Your task to perform on an android device: Show the shopping cart on amazon. Add asus rog to the cart on amazon, then select checkout. Image 0: 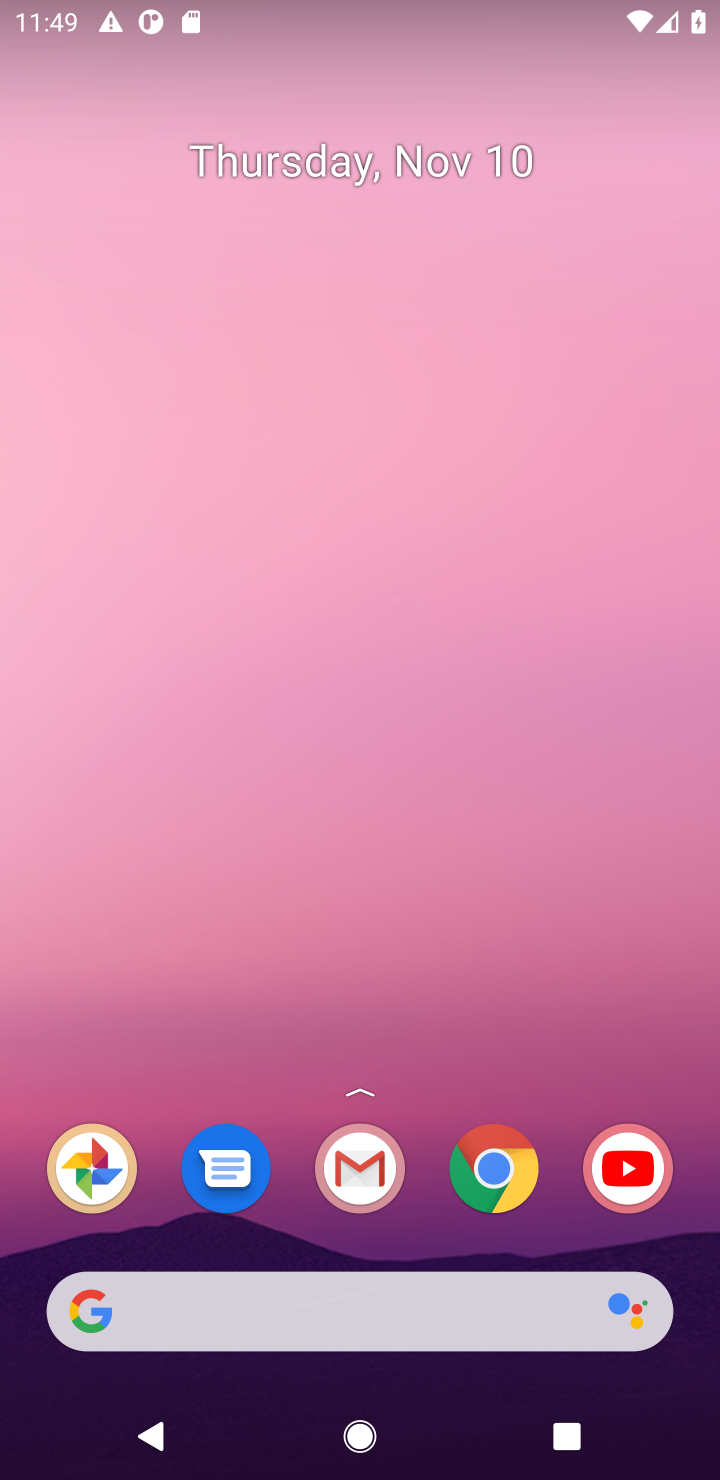
Step 0: click (494, 1193)
Your task to perform on an android device: Show the shopping cart on amazon. Add asus rog to the cart on amazon, then select checkout. Image 1: 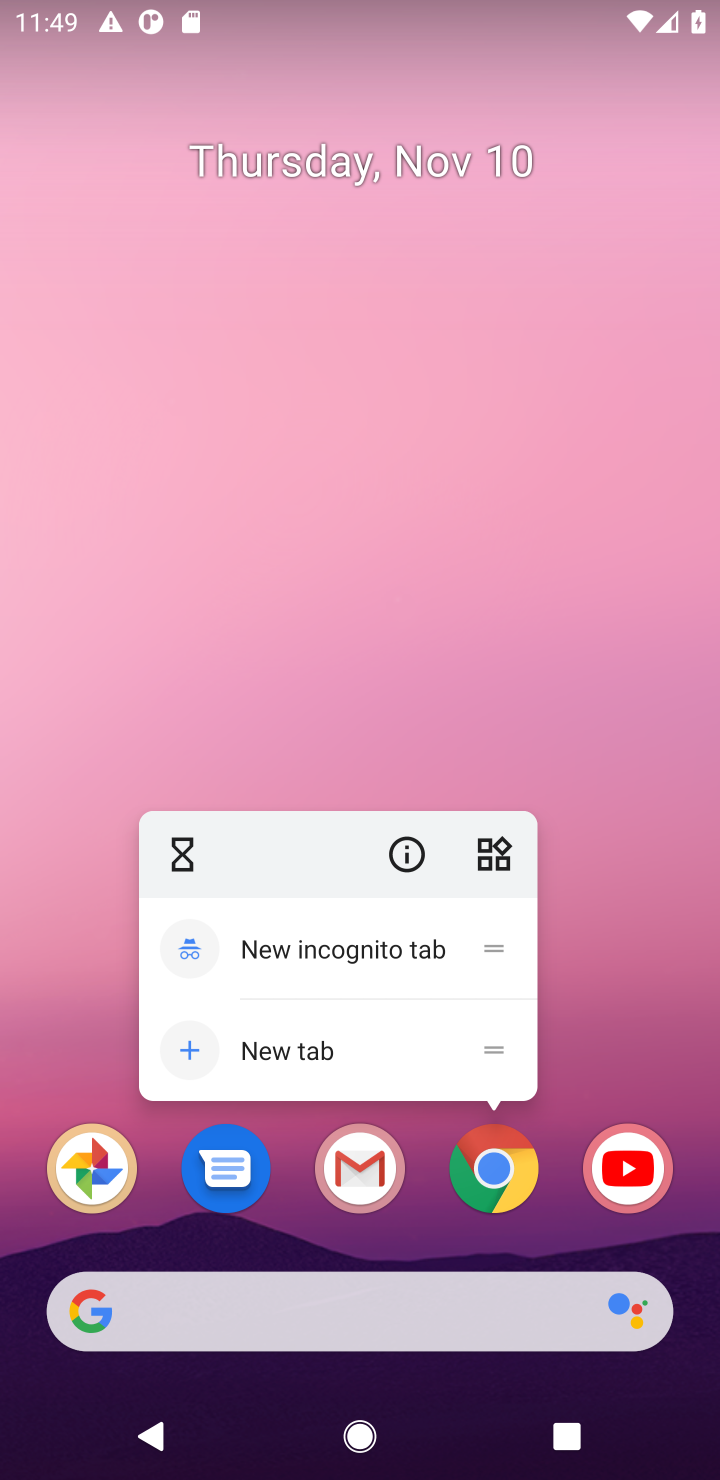
Step 1: click (507, 1160)
Your task to perform on an android device: Show the shopping cart on amazon. Add asus rog to the cart on amazon, then select checkout. Image 2: 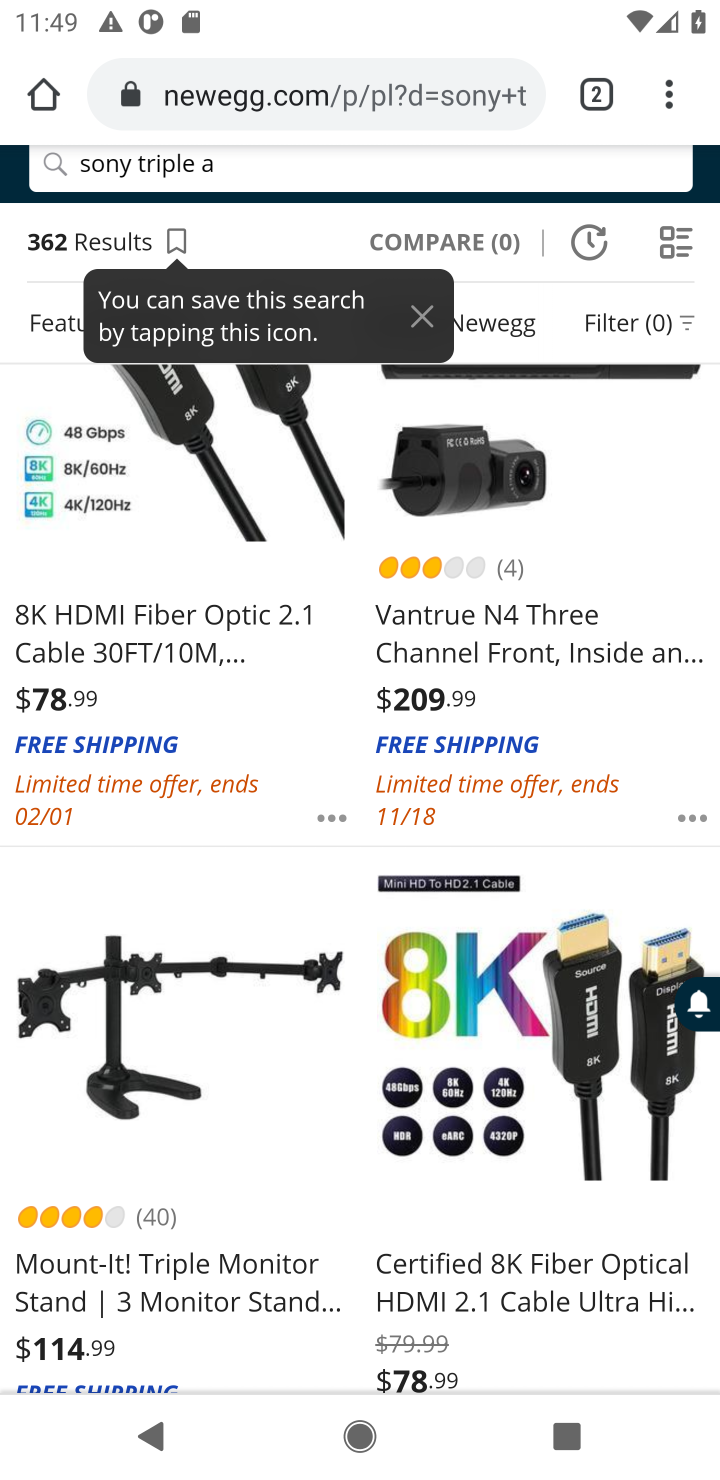
Step 2: click (203, 104)
Your task to perform on an android device: Show the shopping cart on amazon. Add asus rog to the cart on amazon, then select checkout. Image 3: 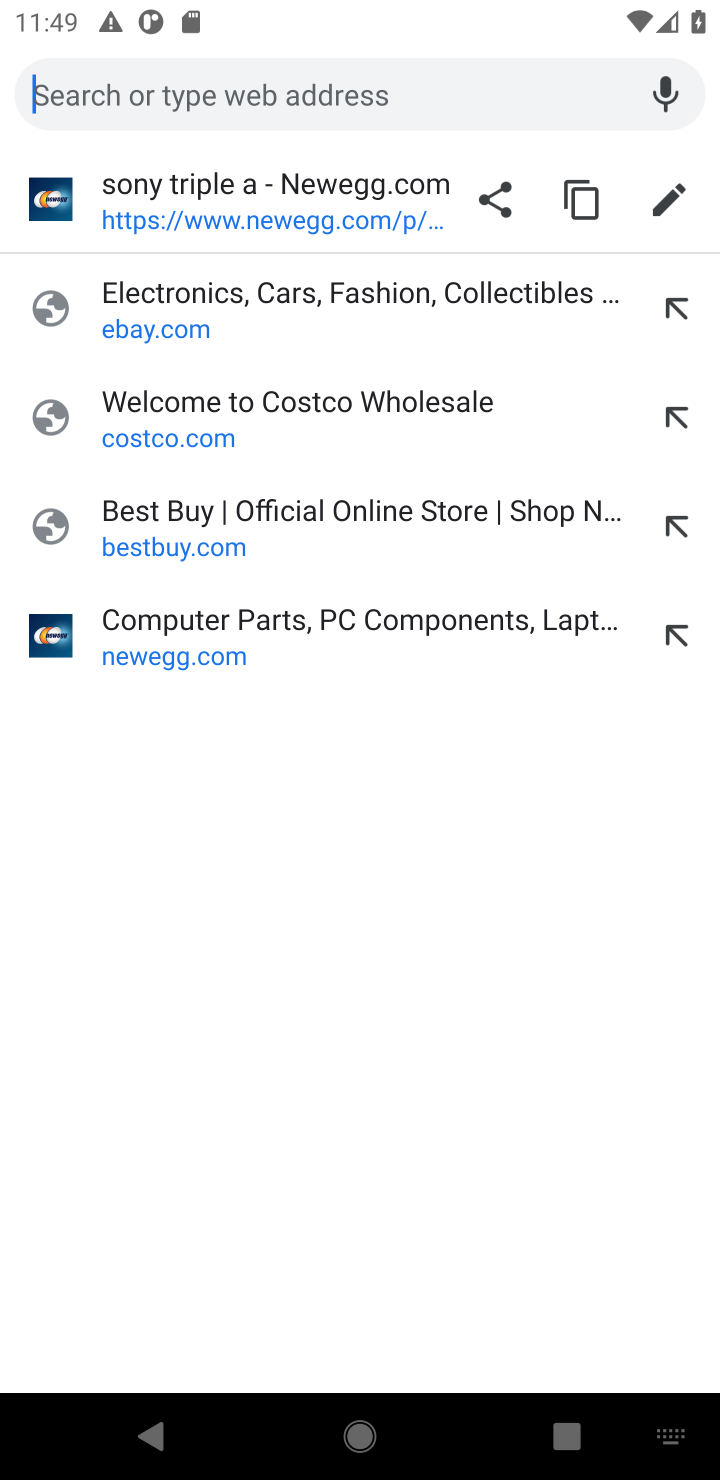
Step 3: type "amazon.com"
Your task to perform on an android device: Show the shopping cart on amazon. Add asus rog to the cart on amazon, then select checkout. Image 4: 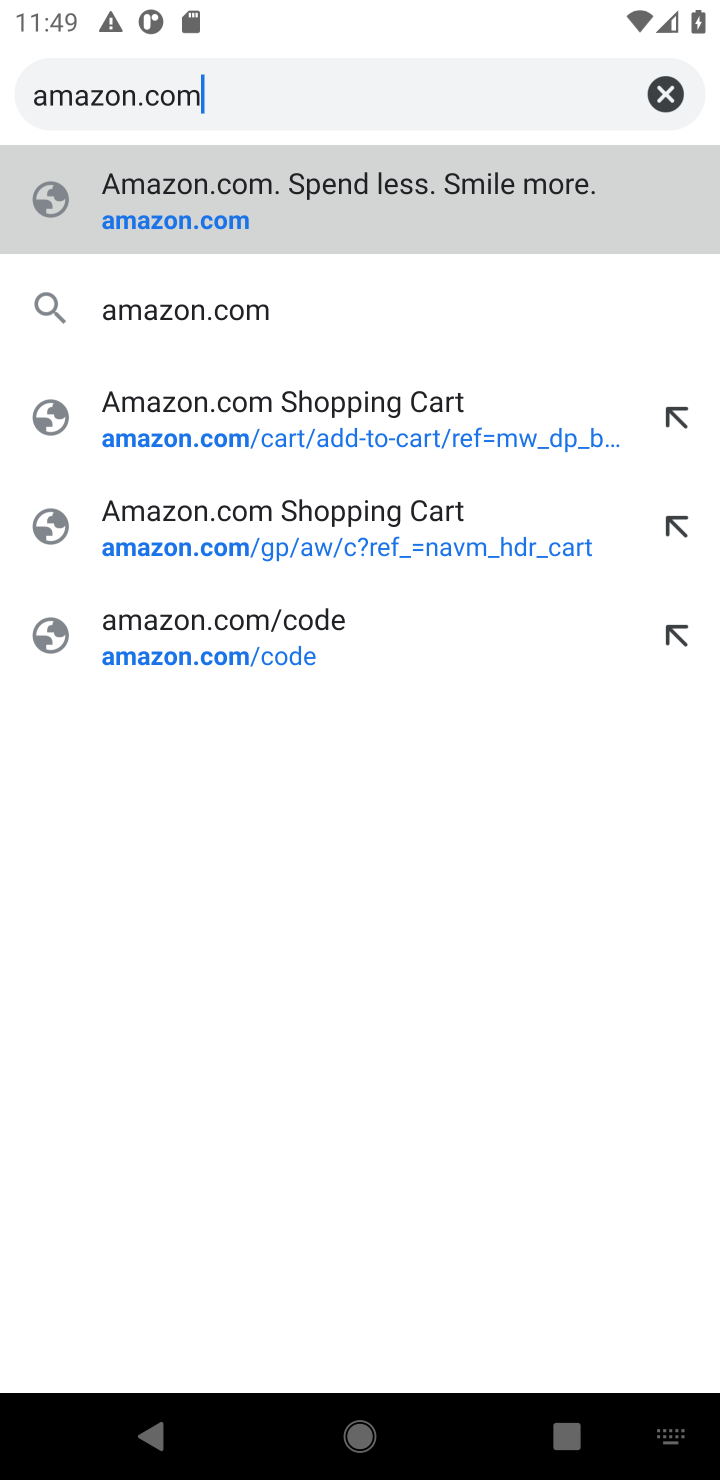
Step 4: click (184, 239)
Your task to perform on an android device: Show the shopping cart on amazon. Add asus rog to the cart on amazon, then select checkout. Image 5: 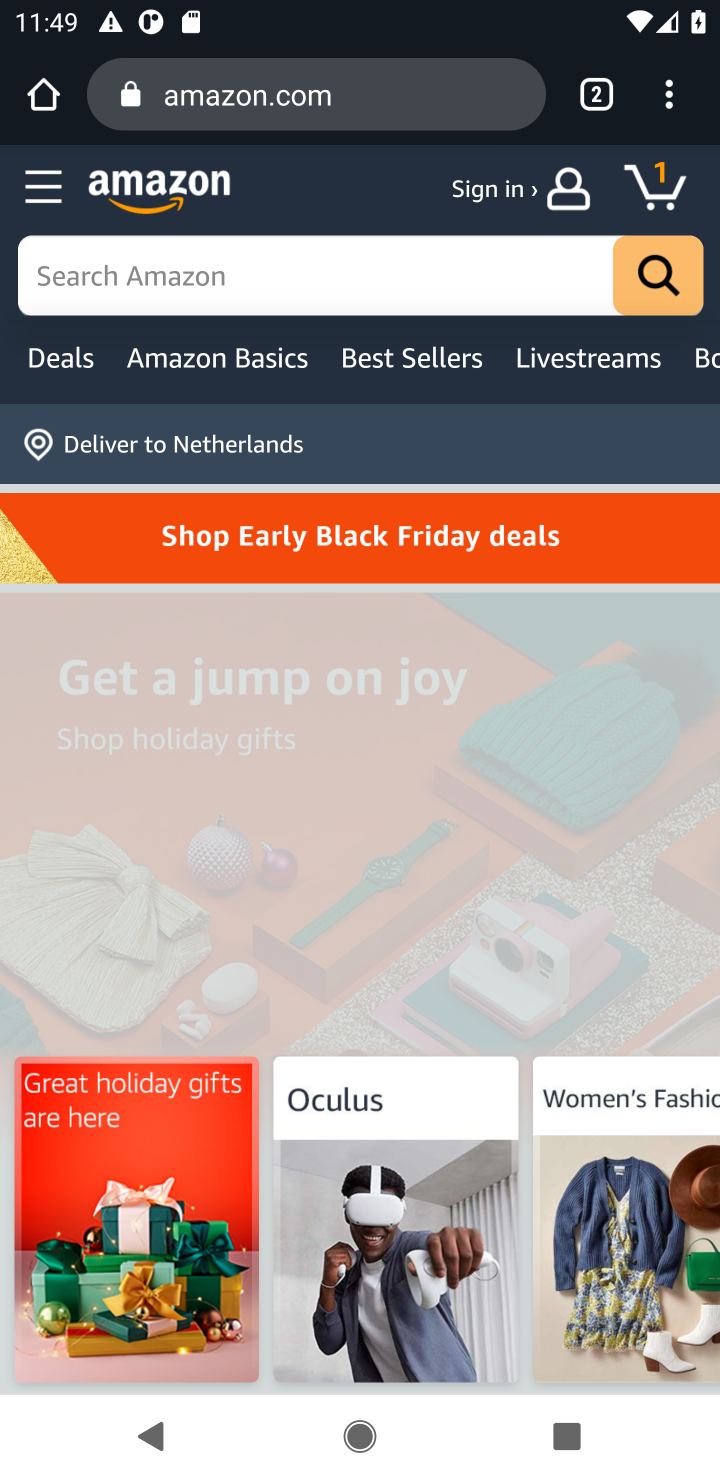
Step 5: click (660, 186)
Your task to perform on an android device: Show the shopping cart on amazon. Add asus rog to the cart on amazon, then select checkout. Image 6: 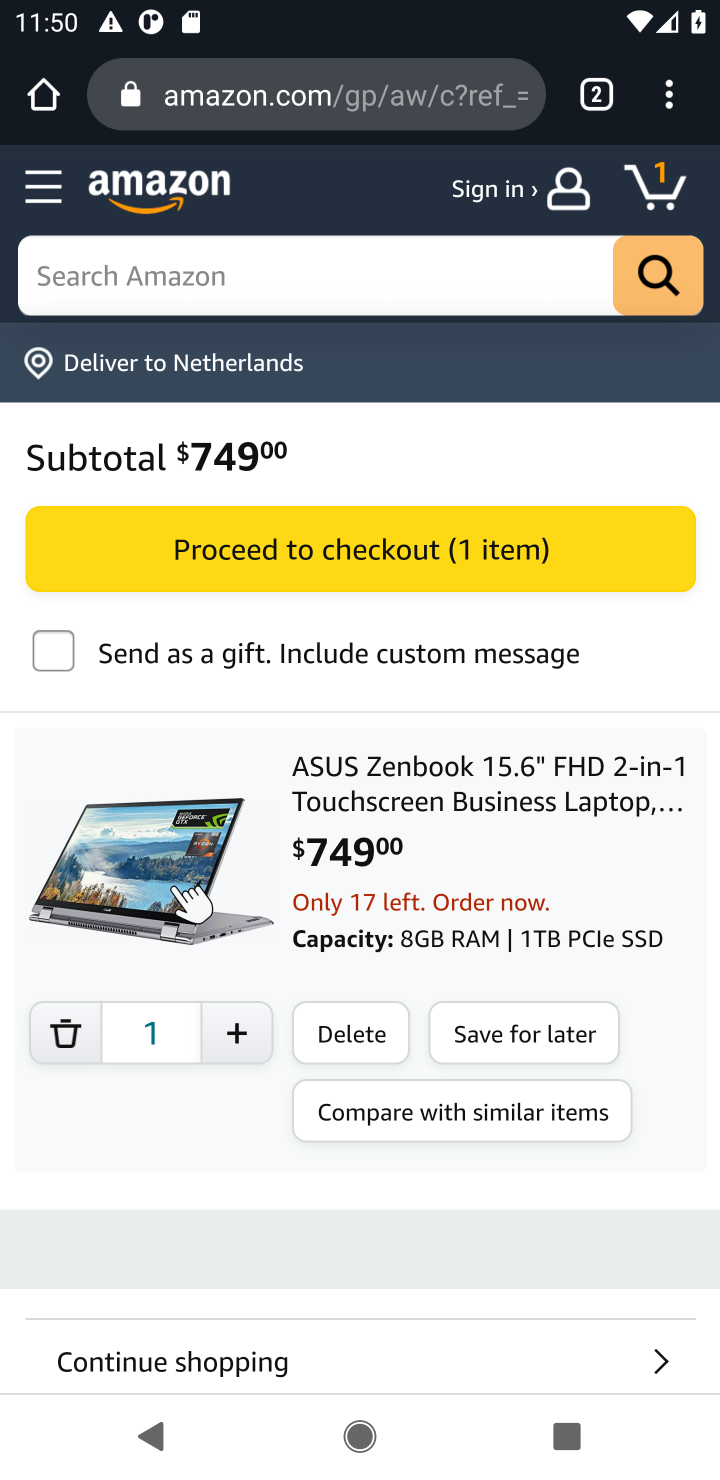
Step 6: drag from (457, 859) to (453, 605)
Your task to perform on an android device: Show the shopping cart on amazon. Add asus rog to the cart on amazon, then select checkout. Image 7: 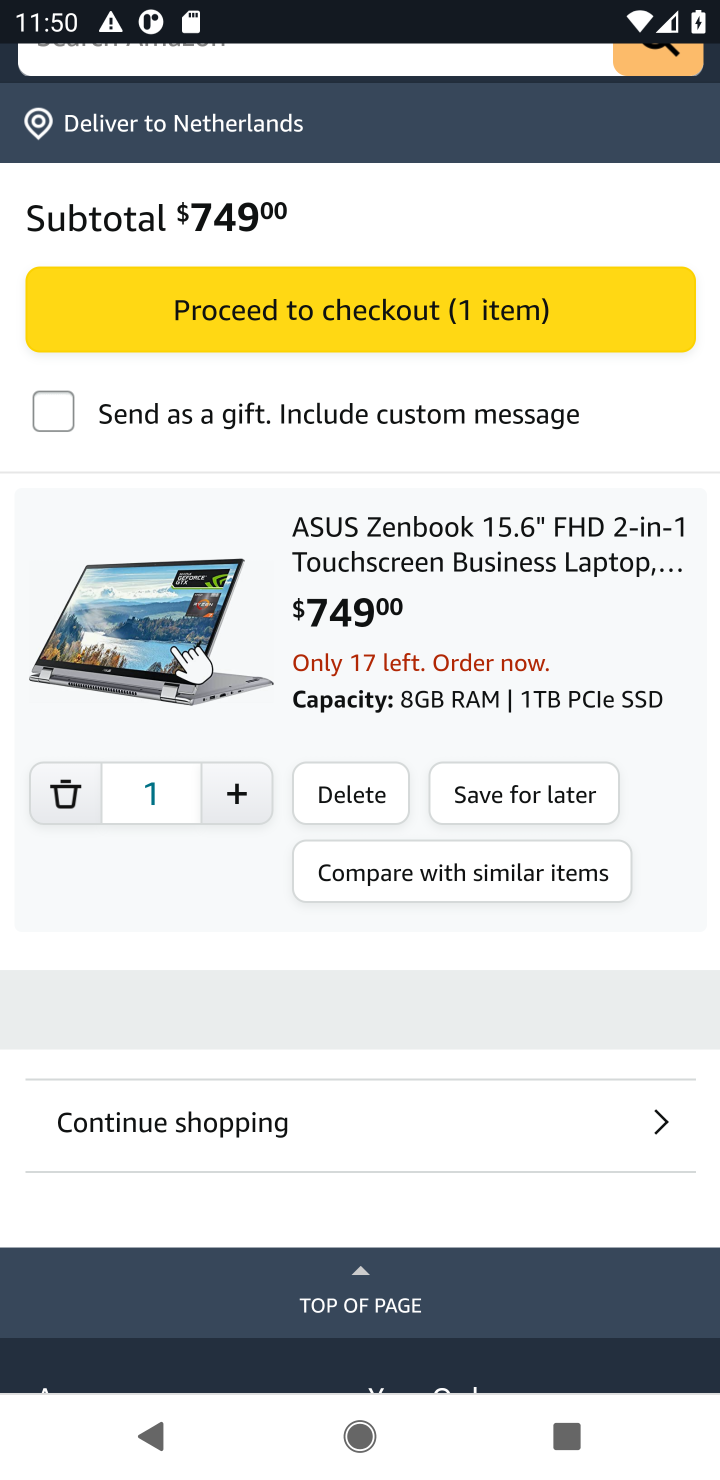
Step 7: drag from (654, 535) to (654, 755)
Your task to perform on an android device: Show the shopping cart on amazon. Add asus rog to the cart on amazon, then select checkout. Image 8: 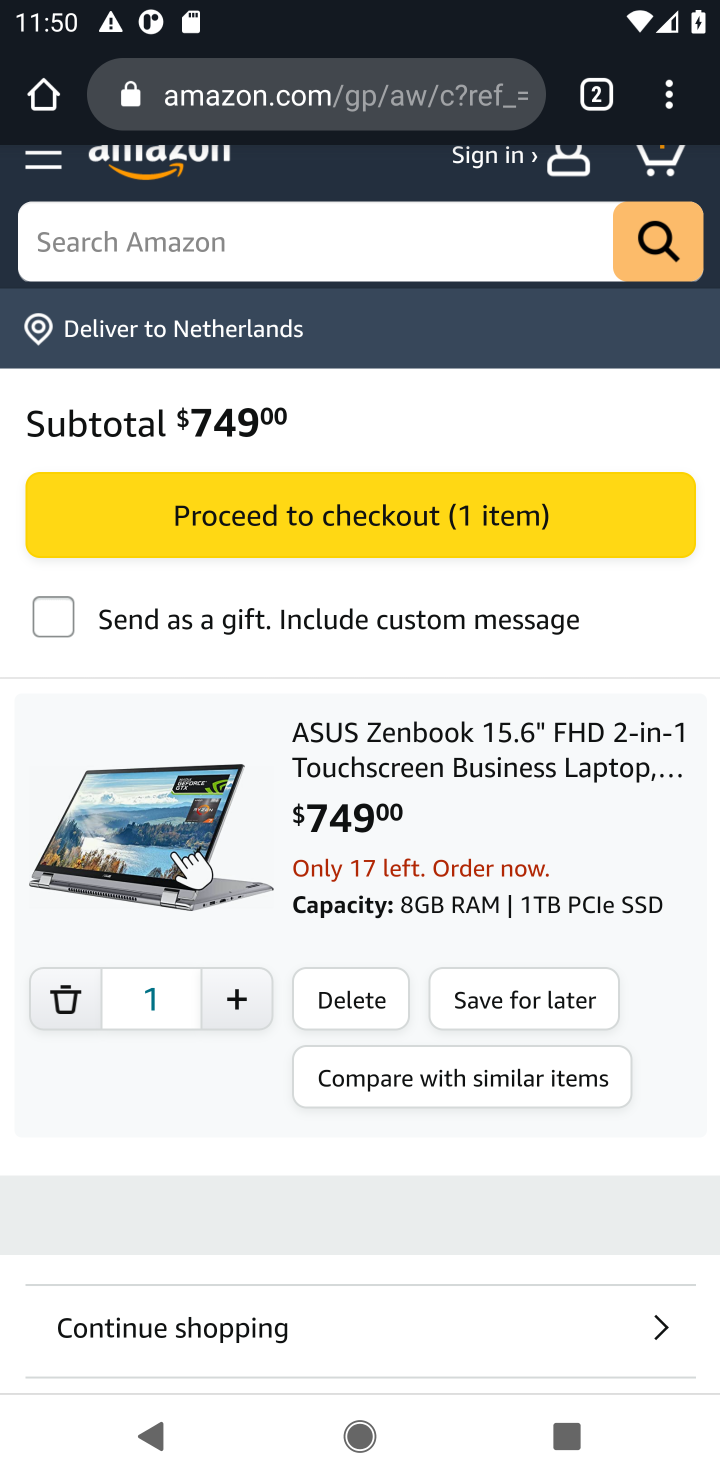
Step 8: click (277, 259)
Your task to perform on an android device: Show the shopping cart on amazon. Add asus rog to the cart on amazon, then select checkout. Image 9: 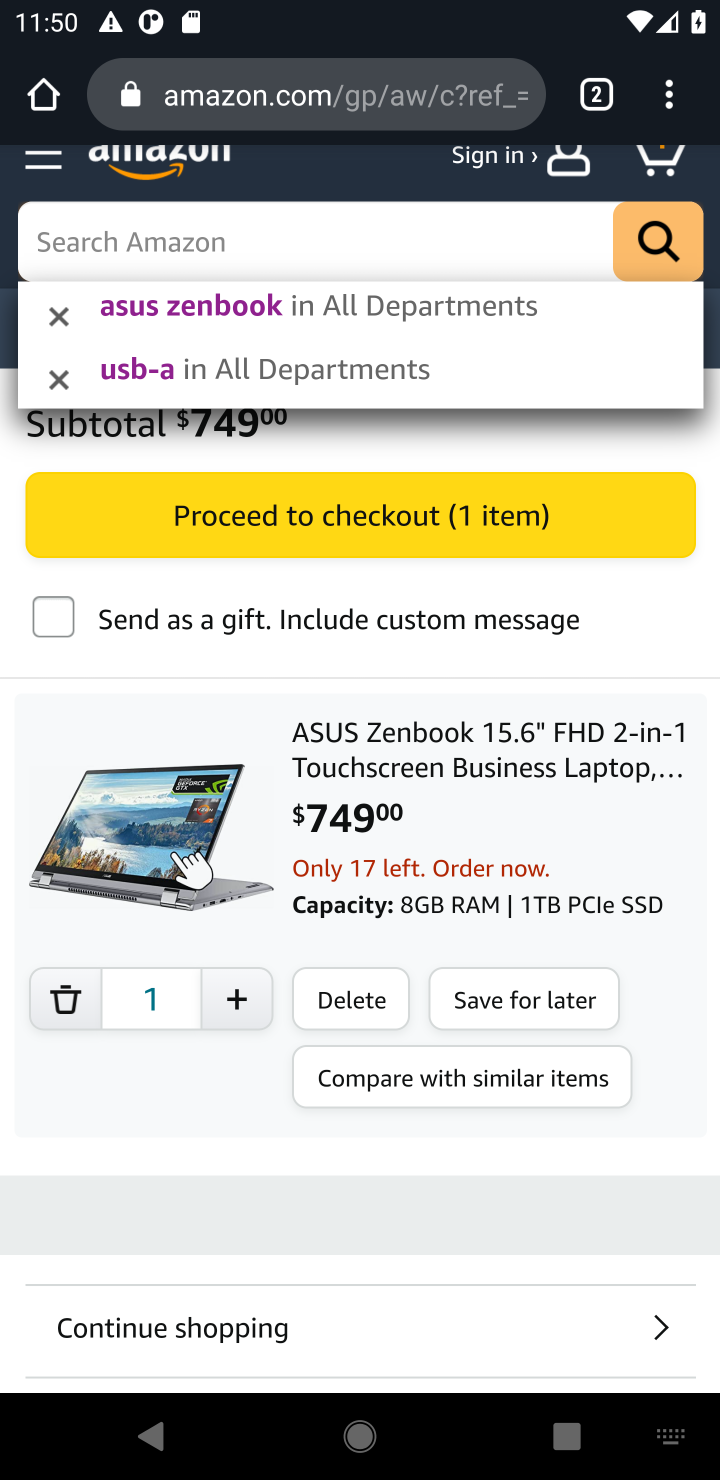
Step 9: type "asus rog"
Your task to perform on an android device: Show the shopping cart on amazon. Add asus rog to the cart on amazon, then select checkout. Image 10: 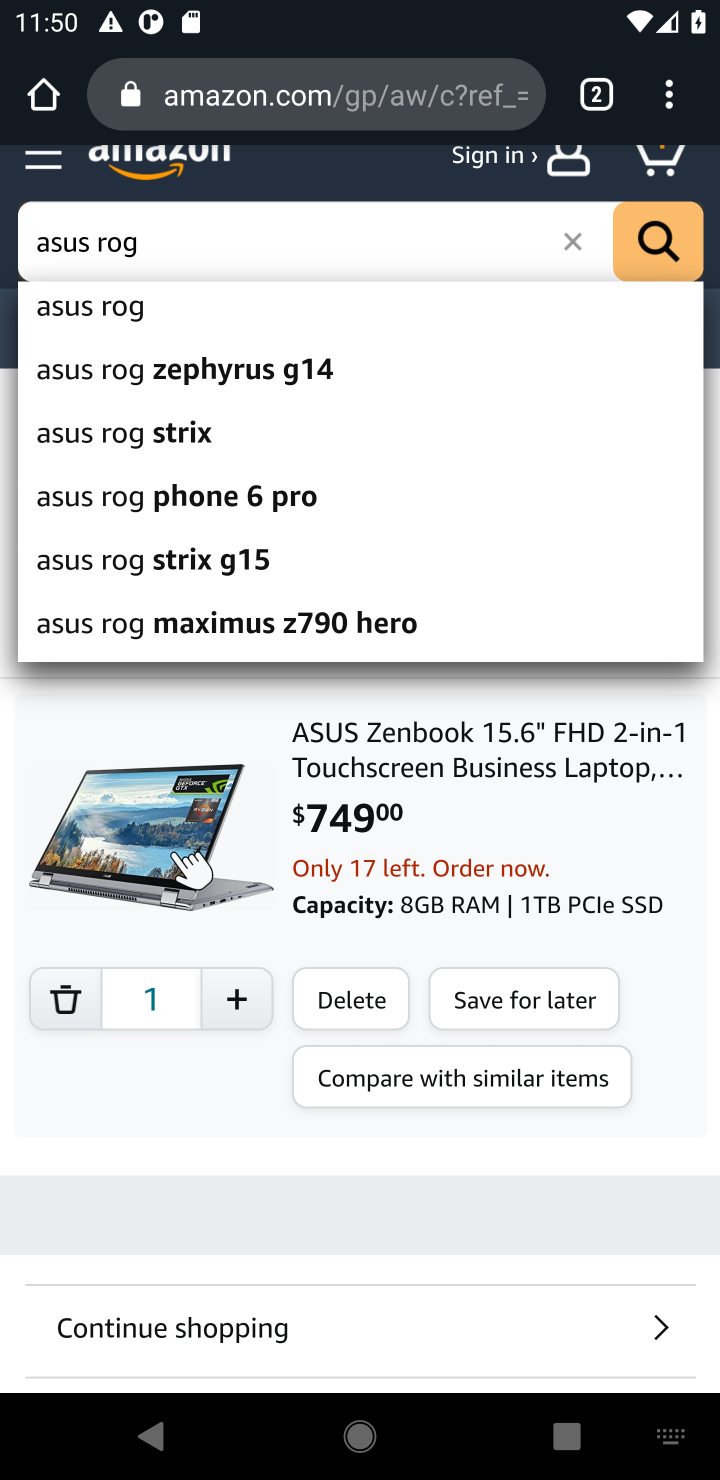
Step 10: click (82, 314)
Your task to perform on an android device: Show the shopping cart on amazon. Add asus rog to the cart on amazon, then select checkout. Image 11: 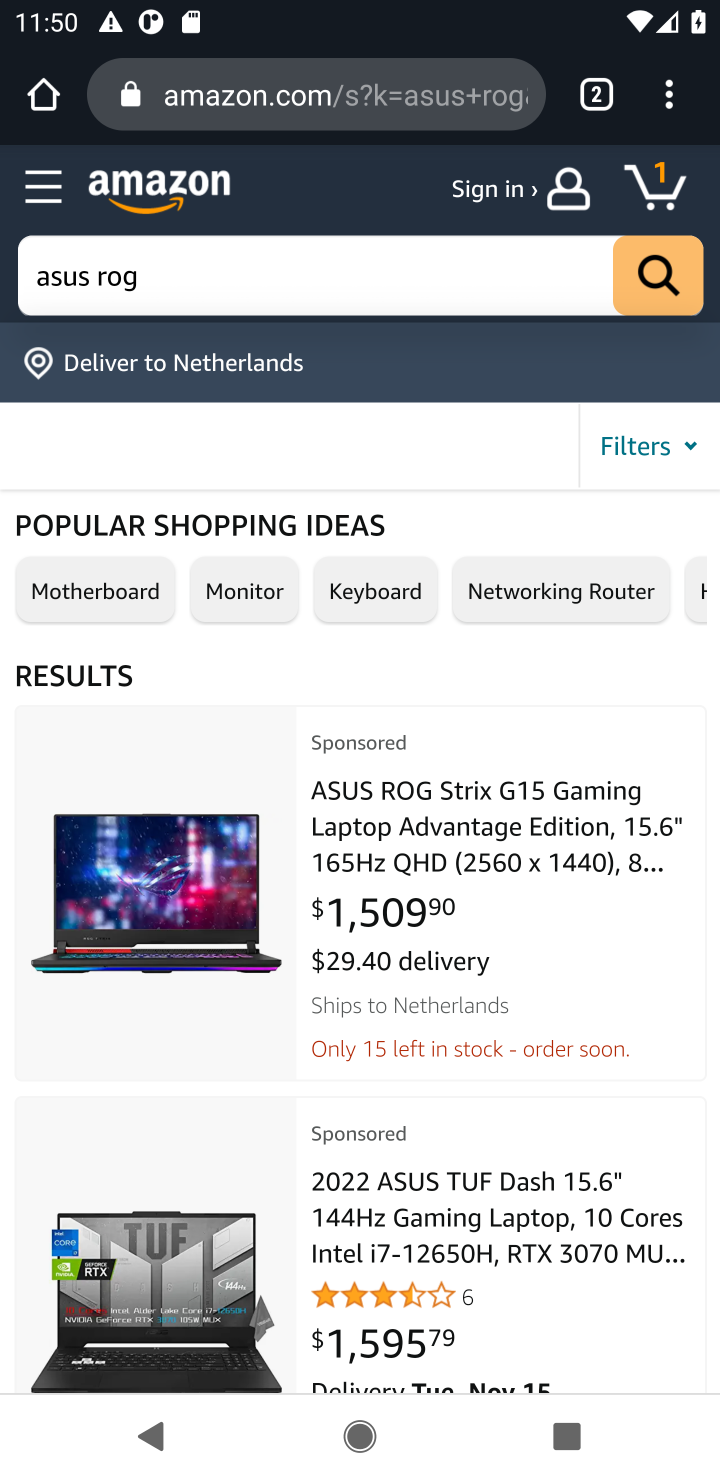
Step 11: click (198, 878)
Your task to perform on an android device: Show the shopping cart on amazon. Add asus rog to the cart on amazon, then select checkout. Image 12: 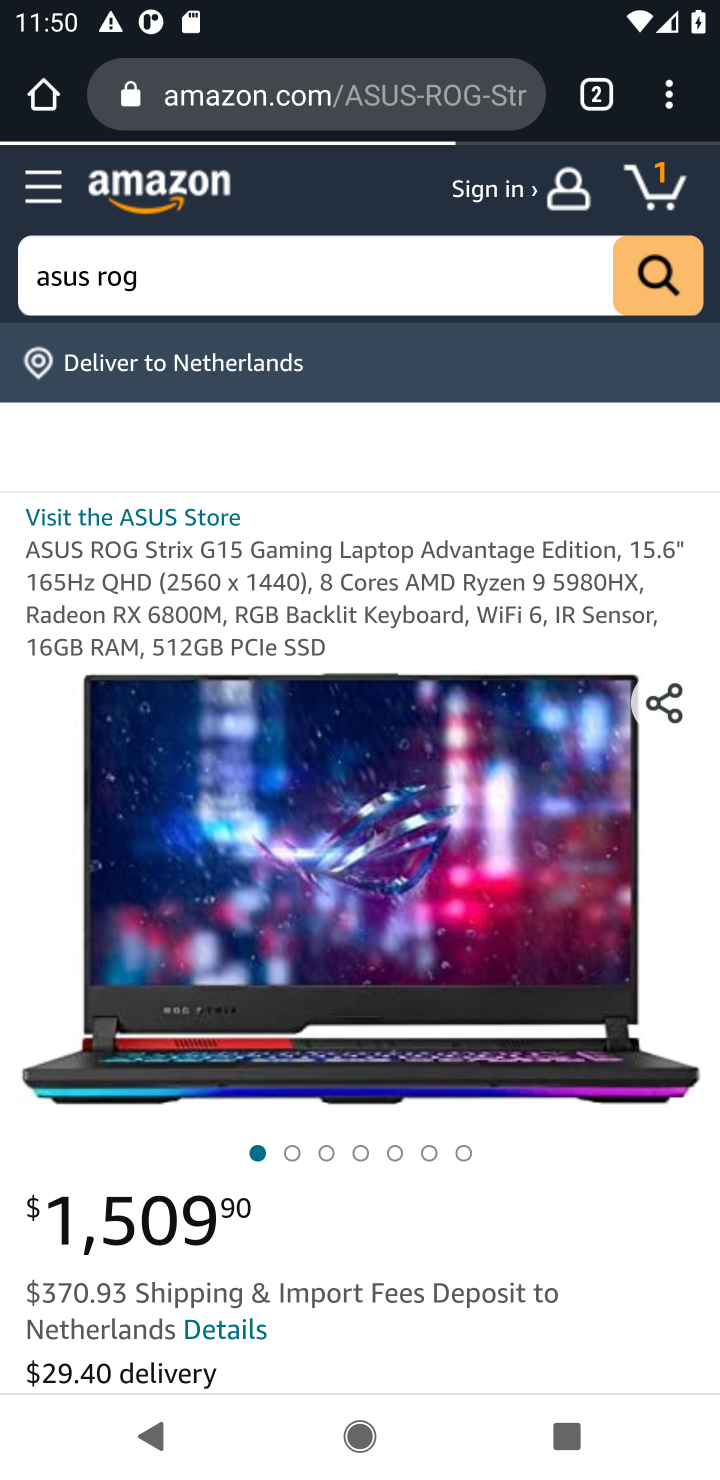
Step 12: drag from (248, 965) to (275, 428)
Your task to perform on an android device: Show the shopping cart on amazon. Add asus rog to the cart on amazon, then select checkout. Image 13: 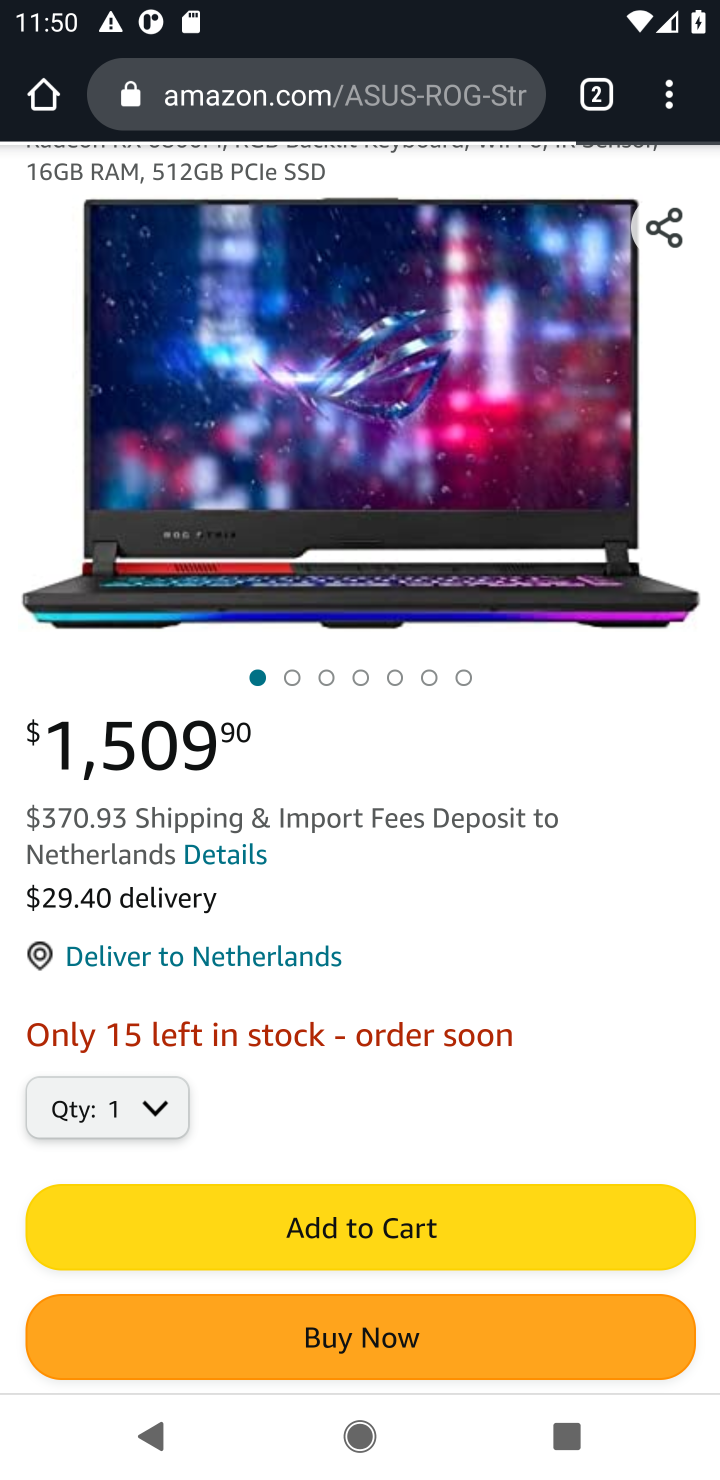
Step 13: click (352, 1219)
Your task to perform on an android device: Show the shopping cart on amazon. Add asus rog to the cart on amazon, then select checkout. Image 14: 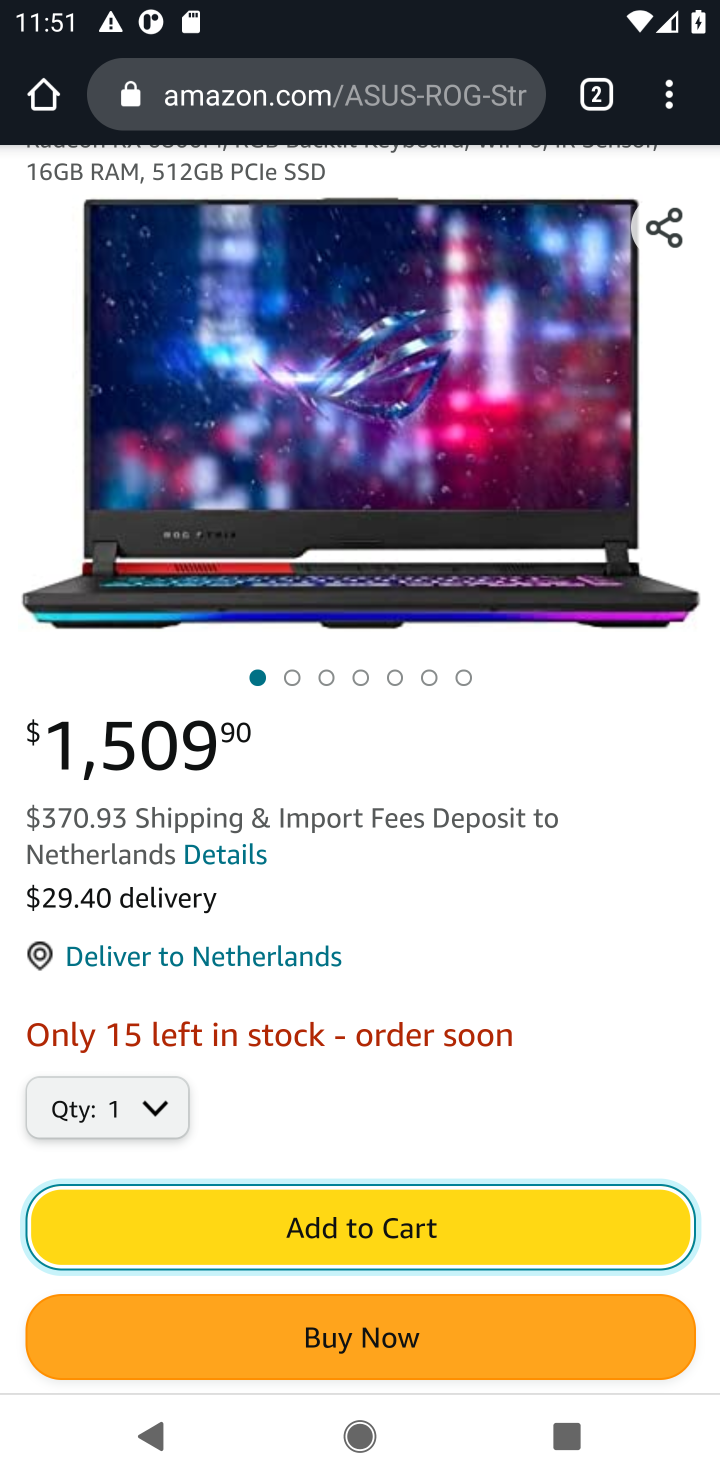
Step 14: click (319, 1221)
Your task to perform on an android device: Show the shopping cart on amazon. Add asus rog to the cart on amazon, then select checkout. Image 15: 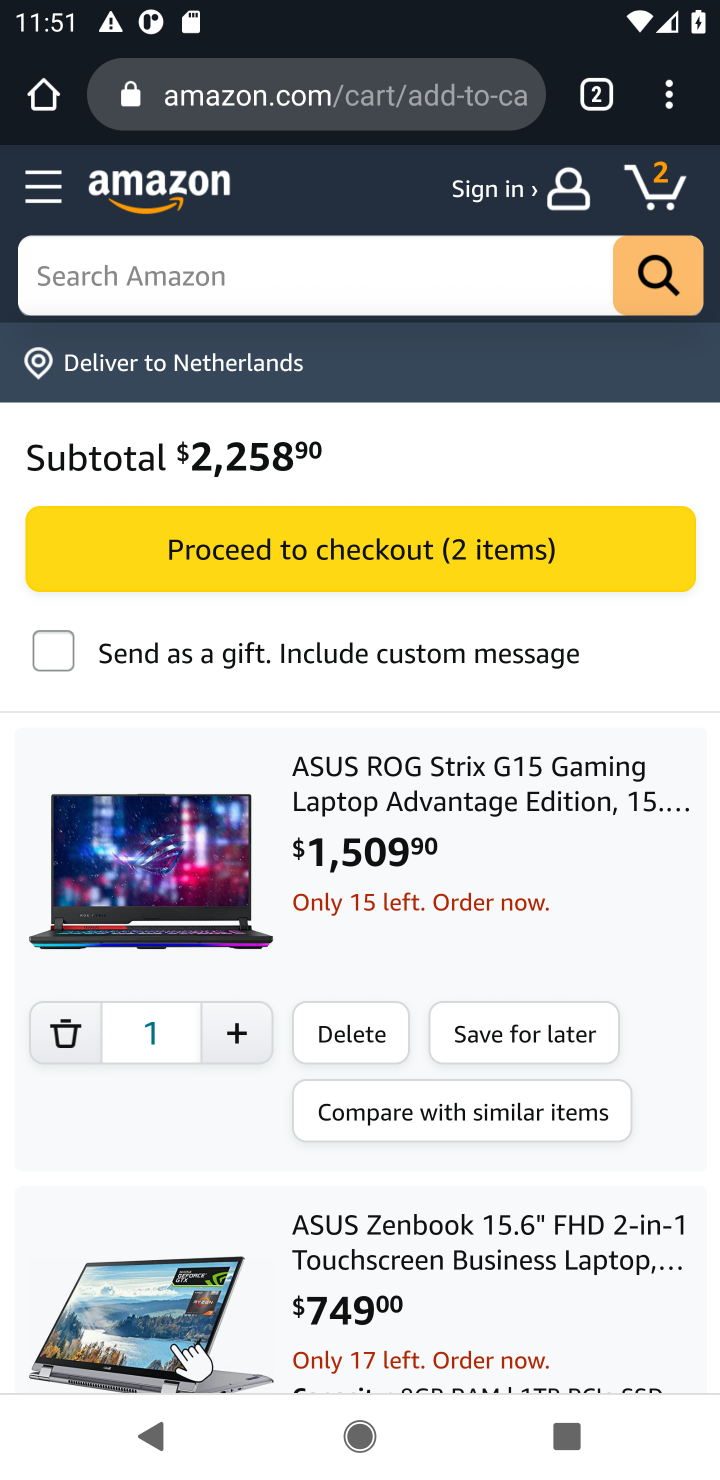
Step 15: click (313, 558)
Your task to perform on an android device: Show the shopping cart on amazon. Add asus rog to the cart on amazon, then select checkout. Image 16: 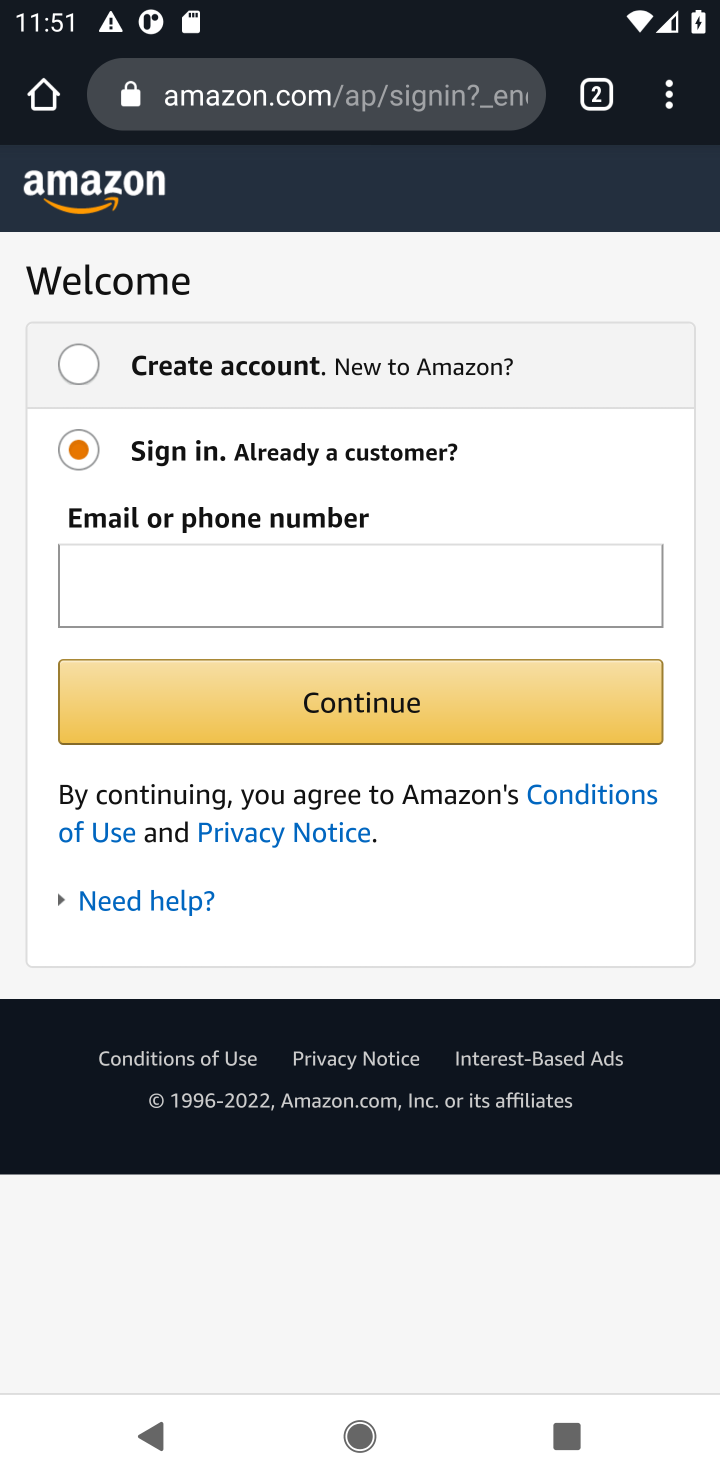
Step 16: task complete